Your task to perform on an android device: turn off notifications in google photos Image 0: 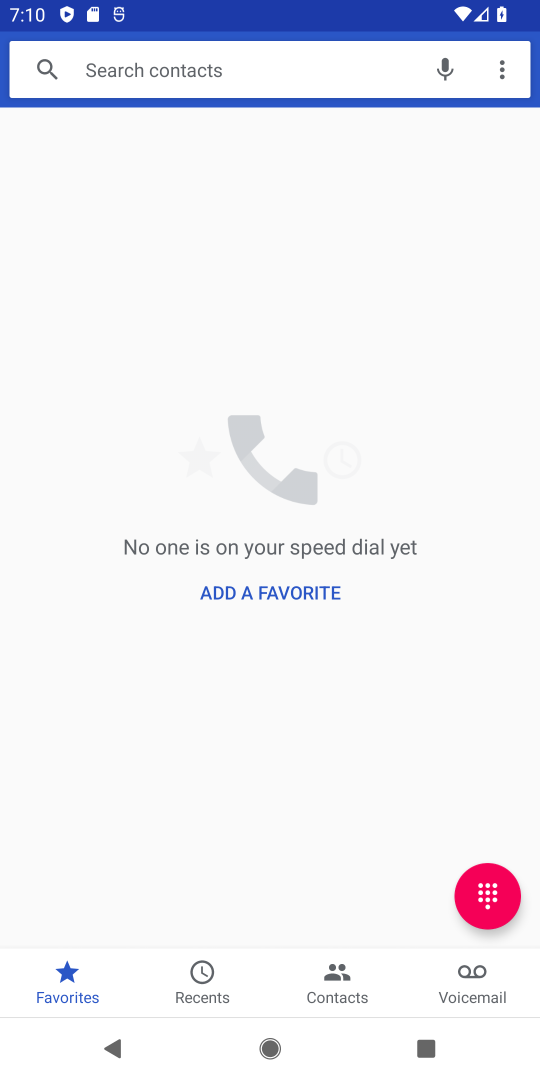
Step 0: press home button
Your task to perform on an android device: turn off notifications in google photos Image 1: 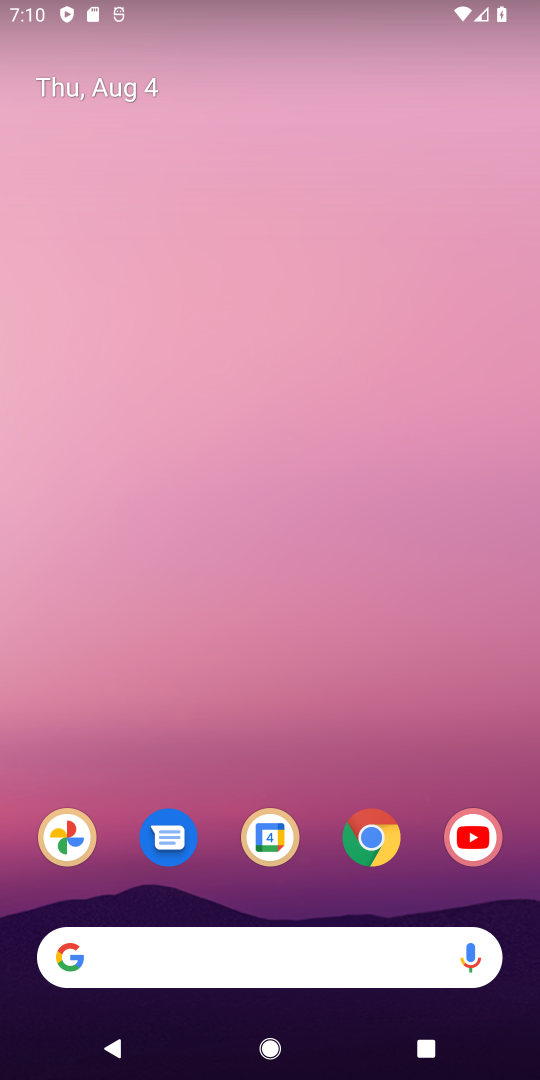
Step 1: drag from (335, 694) to (352, 299)
Your task to perform on an android device: turn off notifications in google photos Image 2: 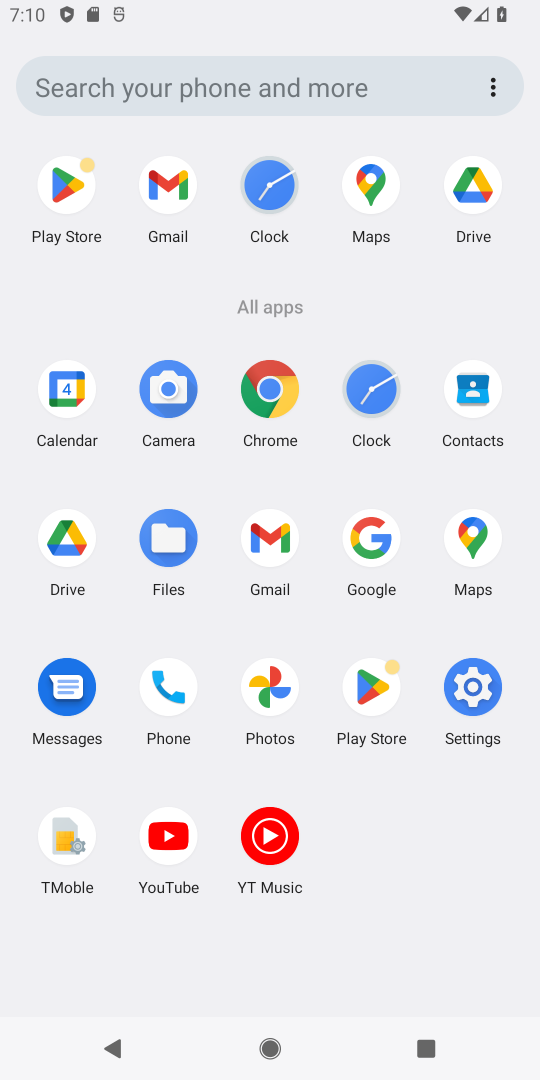
Step 2: click (266, 700)
Your task to perform on an android device: turn off notifications in google photos Image 3: 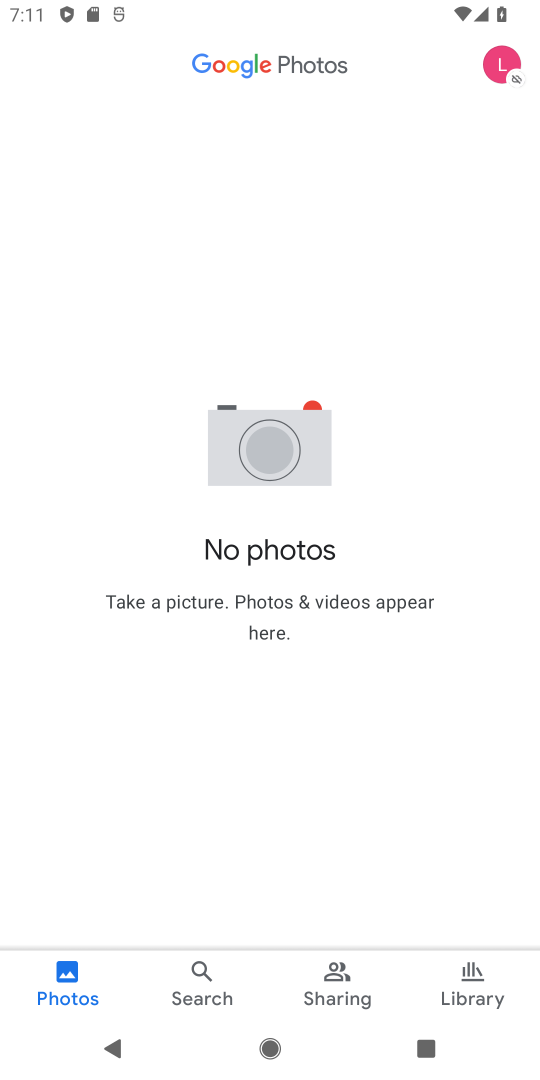
Step 3: task complete